Your task to perform on an android device: Clear all items from cart on amazon.com. Search for usb-a on amazon.com, select the first entry, add it to the cart, then select checkout. Image 0: 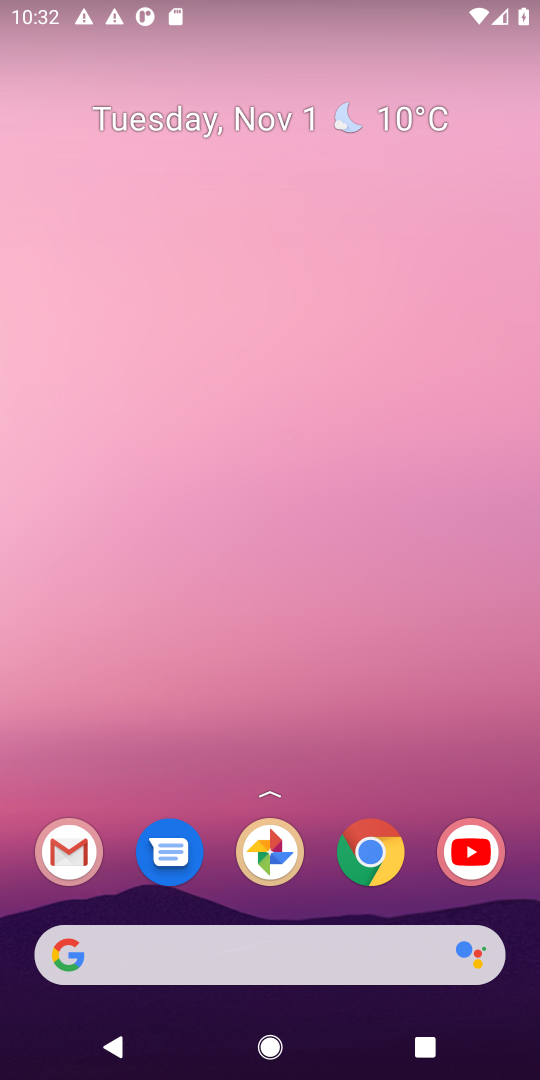
Step 0: press home button
Your task to perform on an android device: Clear all items from cart on amazon.com. Search for usb-a on amazon.com, select the first entry, add it to the cart, then select checkout. Image 1: 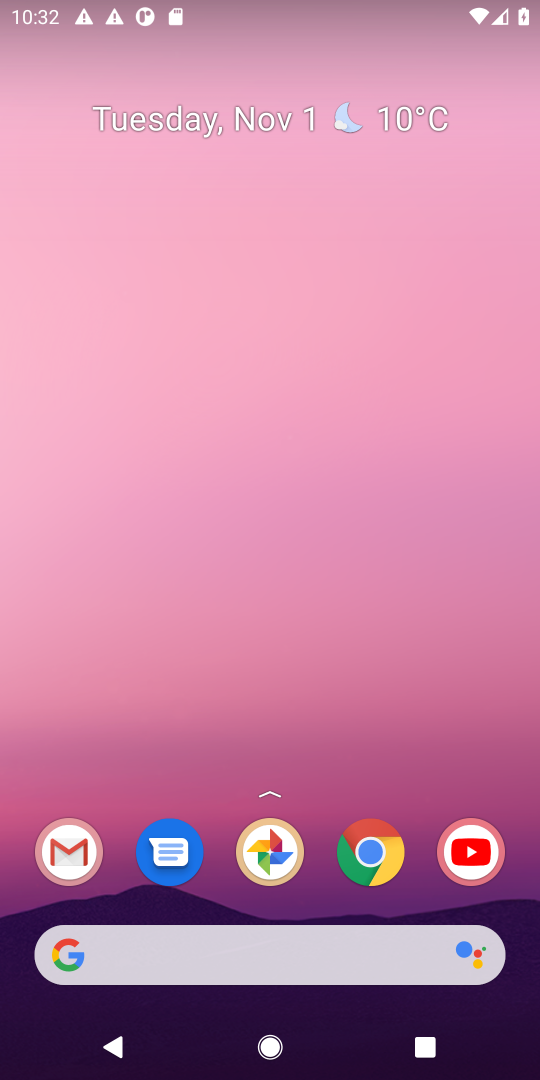
Step 1: click (61, 951)
Your task to perform on an android device: Clear all items from cart on amazon.com. Search for usb-a on amazon.com, select the first entry, add it to the cart, then select checkout. Image 2: 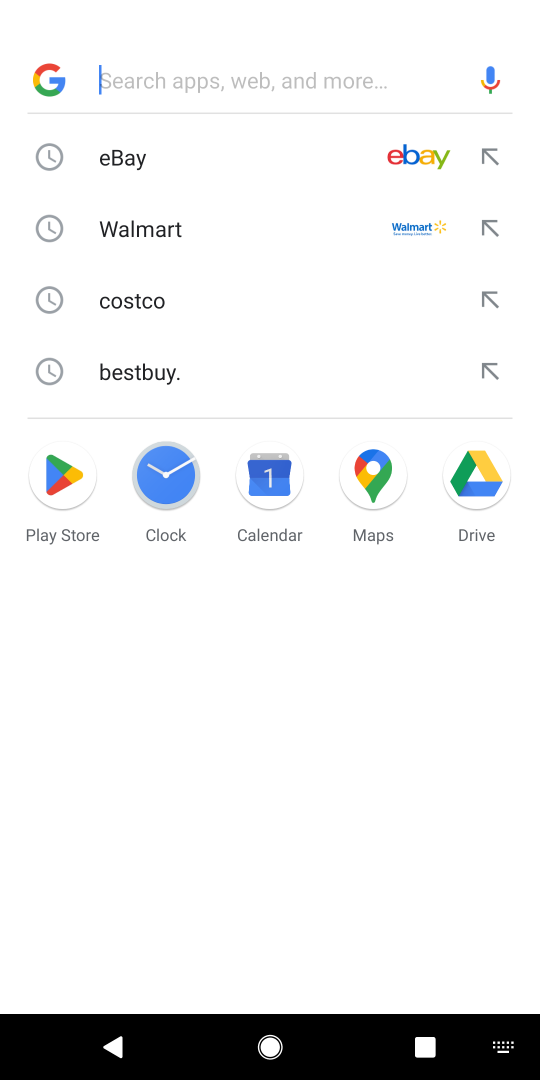
Step 2: type "amazon.com"
Your task to perform on an android device: Clear all items from cart on amazon.com. Search for usb-a on amazon.com, select the first entry, add it to the cart, then select checkout. Image 3: 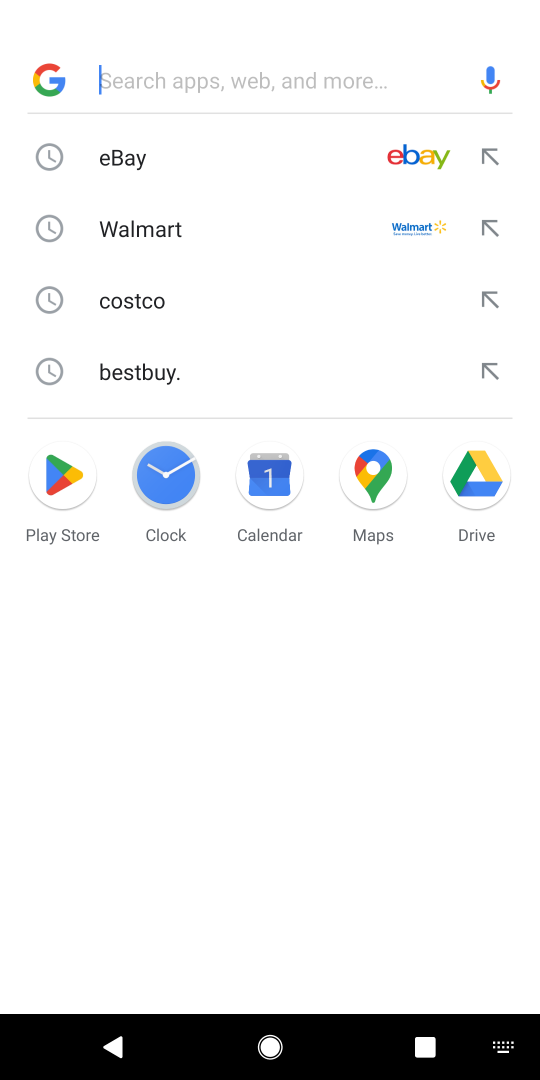
Step 3: click (132, 84)
Your task to perform on an android device: Clear all items from cart on amazon.com. Search for usb-a on amazon.com, select the first entry, add it to the cart, then select checkout. Image 4: 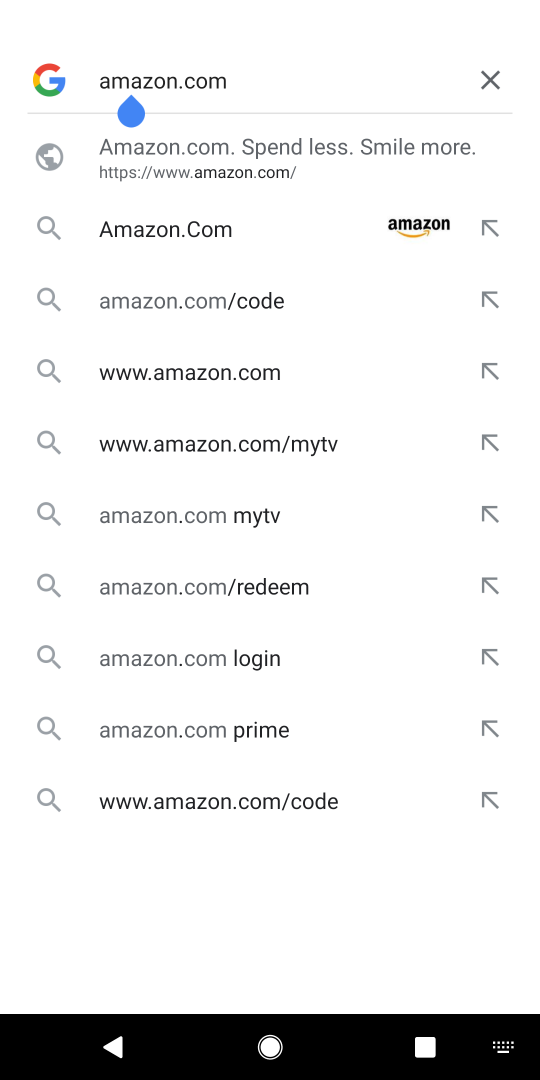
Step 4: click (156, 232)
Your task to perform on an android device: Clear all items from cart on amazon.com. Search for usb-a on amazon.com, select the first entry, add it to the cart, then select checkout. Image 5: 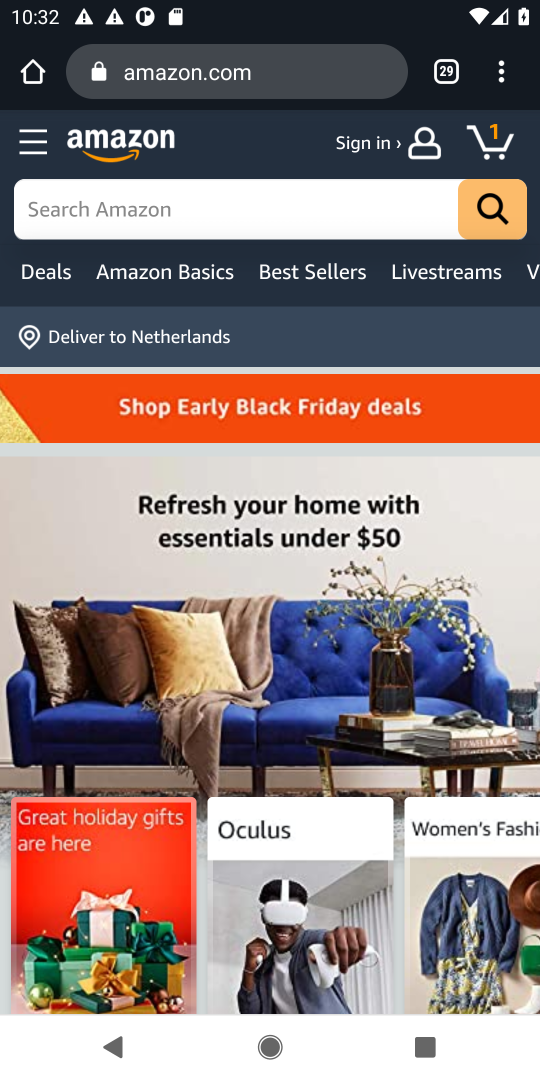
Step 5: click (164, 210)
Your task to perform on an android device: Clear all items from cart on amazon.com. Search for usb-a on amazon.com, select the first entry, add it to the cart, then select checkout. Image 6: 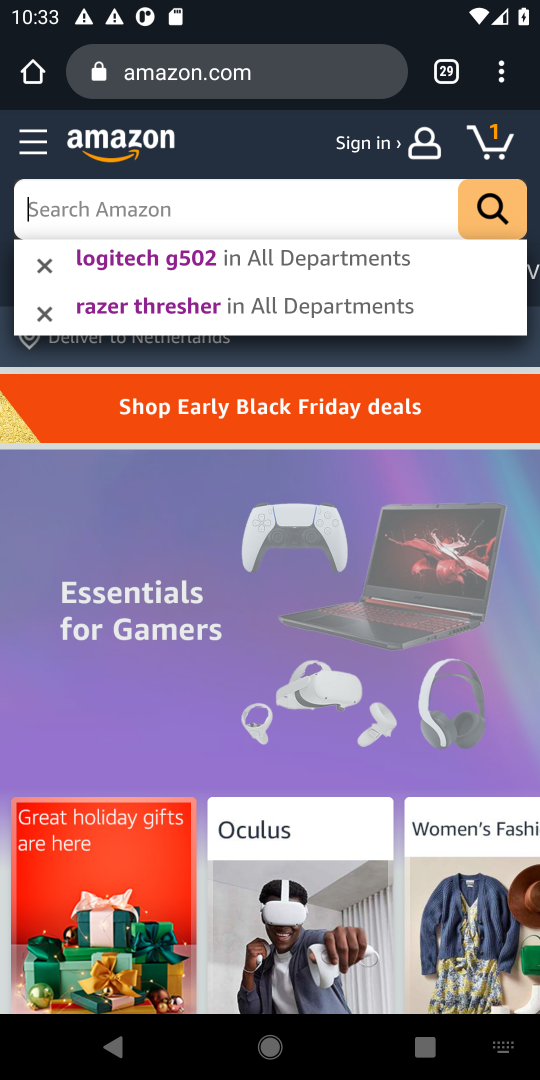
Step 6: type "usb-a "
Your task to perform on an android device: Clear all items from cart on amazon.com. Search for usb-a on amazon.com, select the first entry, add it to the cart, then select checkout. Image 7: 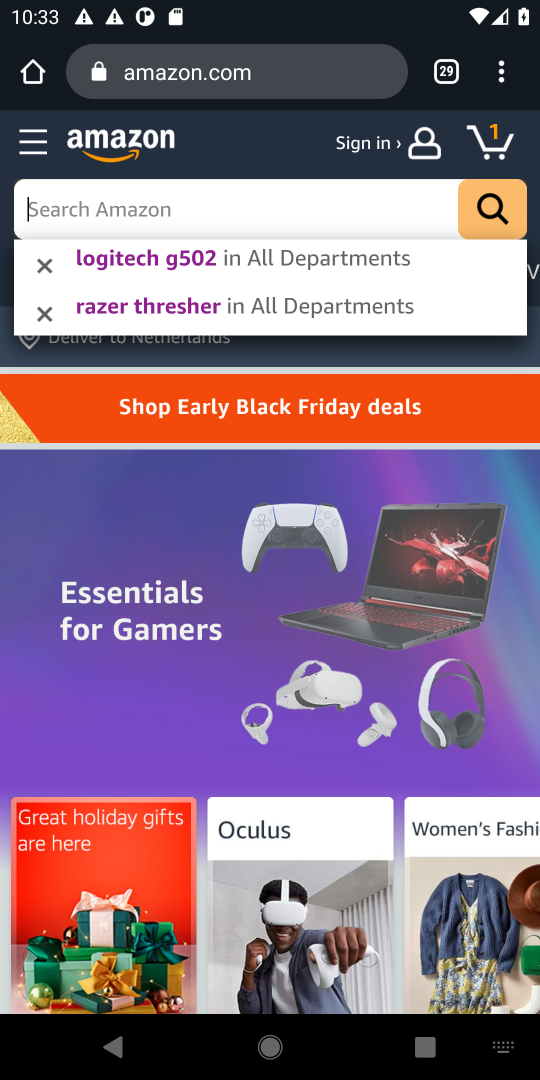
Step 7: click (118, 212)
Your task to perform on an android device: Clear all items from cart on amazon.com. Search for usb-a on amazon.com, select the first entry, add it to the cart, then select checkout. Image 8: 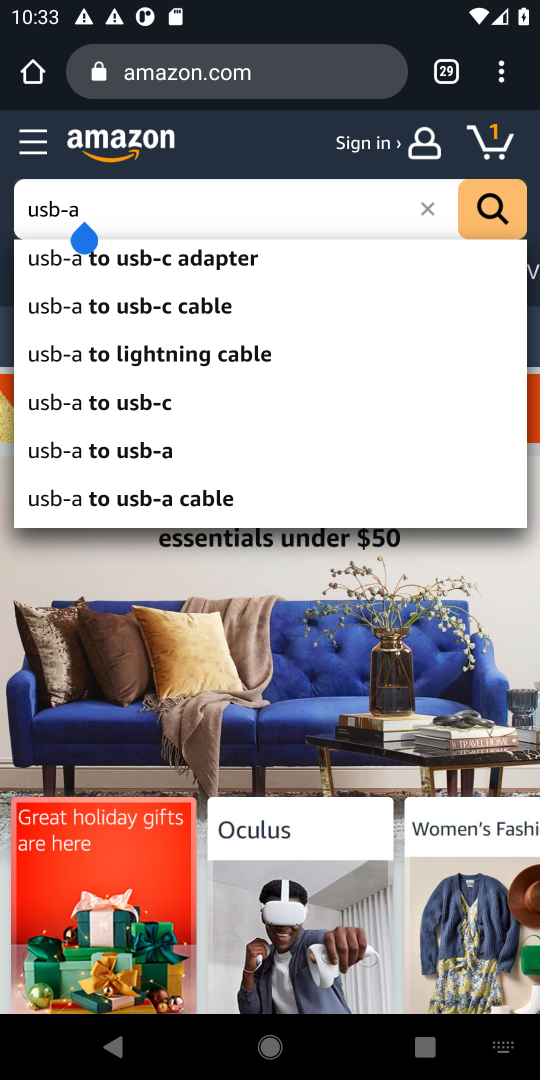
Step 8: click (488, 201)
Your task to perform on an android device: Clear all items from cart on amazon.com. Search for usb-a on amazon.com, select the first entry, add it to the cart, then select checkout. Image 9: 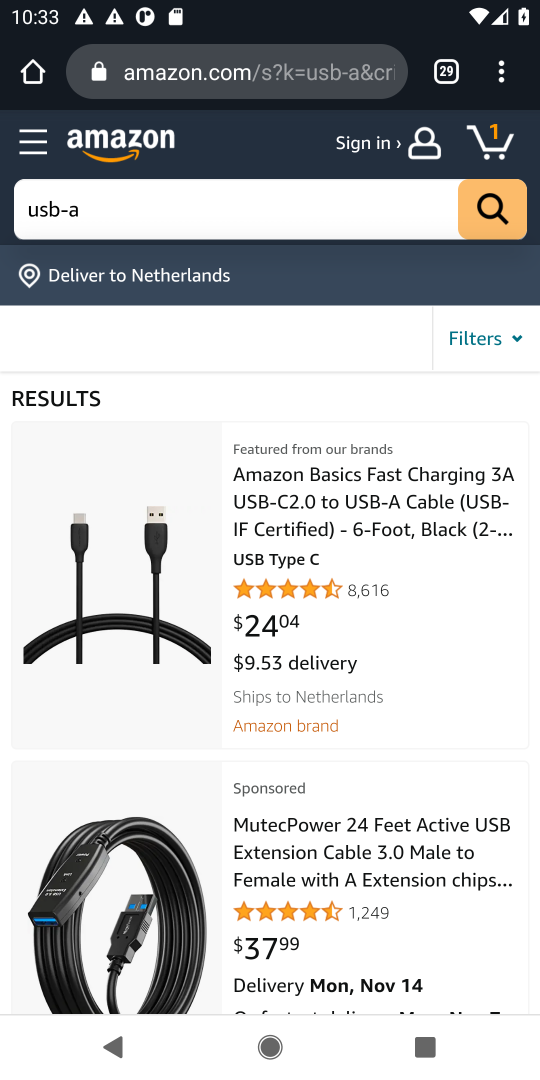
Step 9: drag from (463, 910) to (417, 324)
Your task to perform on an android device: Clear all items from cart on amazon.com. Search for usb-a on amazon.com, select the first entry, add it to the cart, then select checkout. Image 10: 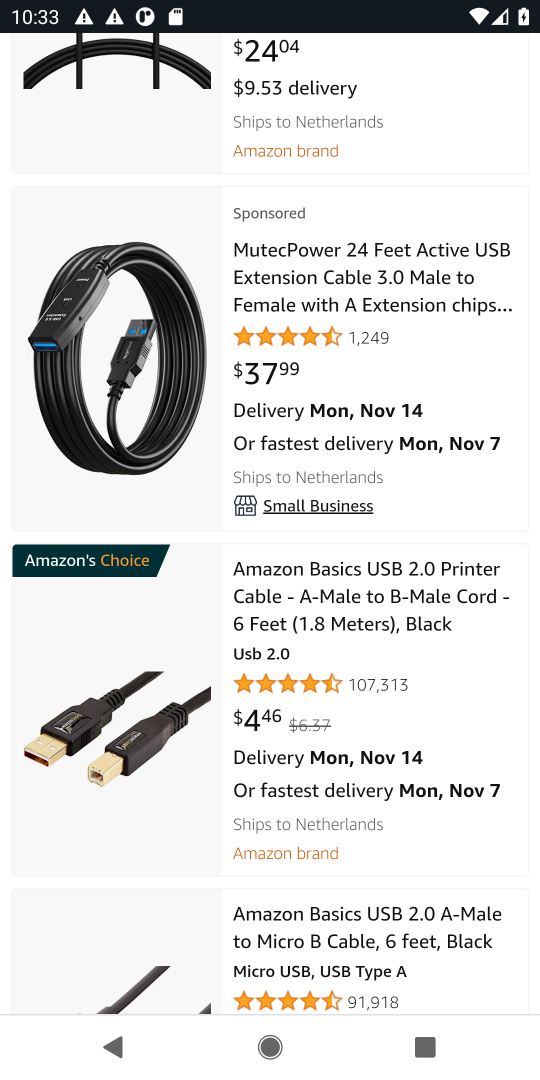
Step 10: click (369, 568)
Your task to perform on an android device: Clear all items from cart on amazon.com. Search for usb-a on amazon.com, select the first entry, add it to the cart, then select checkout. Image 11: 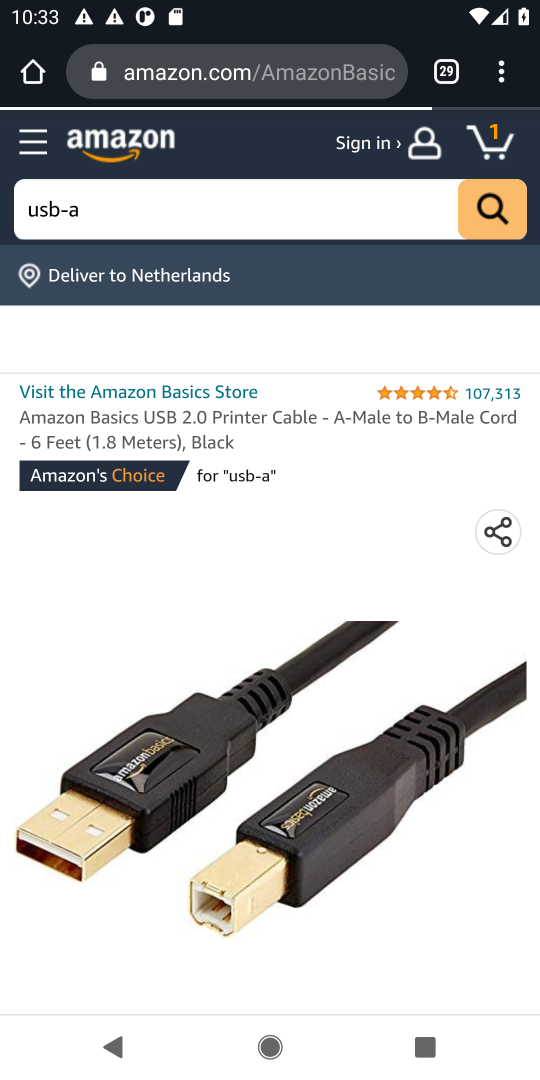
Step 11: drag from (394, 836) to (383, 386)
Your task to perform on an android device: Clear all items from cart on amazon.com. Search for usb-a on amazon.com, select the first entry, add it to the cart, then select checkout. Image 12: 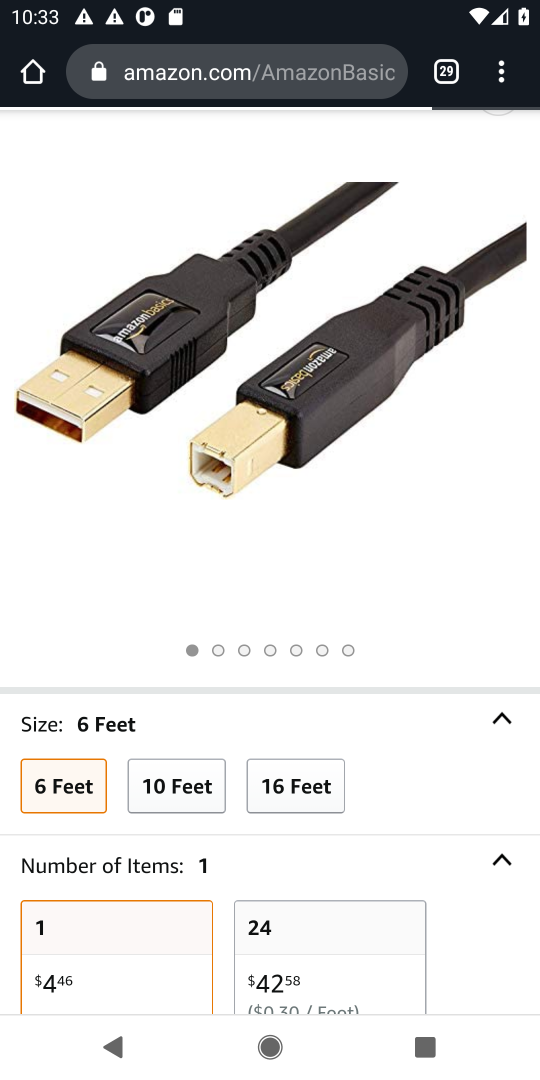
Step 12: drag from (399, 826) to (428, 298)
Your task to perform on an android device: Clear all items from cart on amazon.com. Search for usb-a on amazon.com, select the first entry, add it to the cart, then select checkout. Image 13: 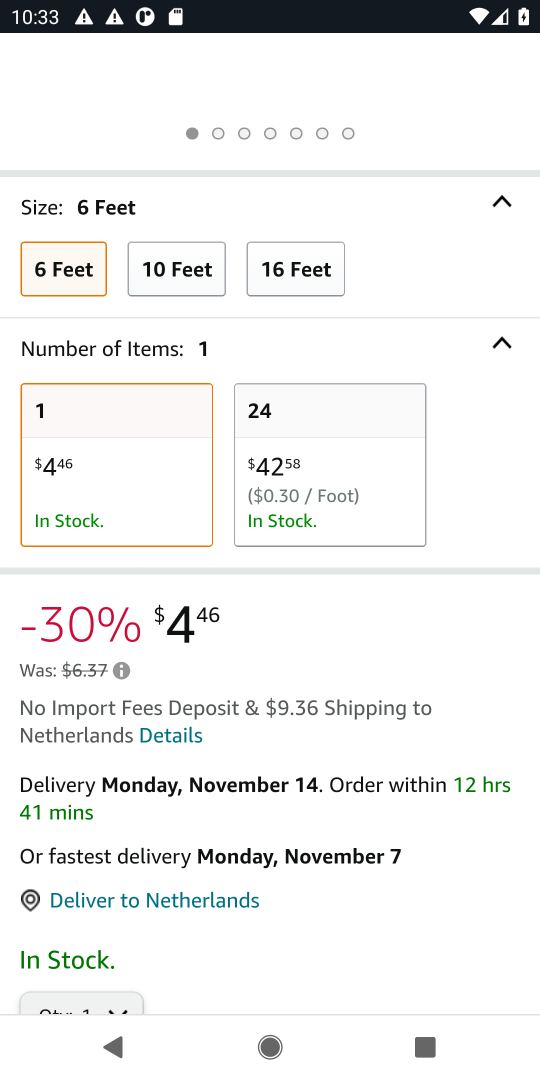
Step 13: drag from (419, 877) to (408, 269)
Your task to perform on an android device: Clear all items from cart on amazon.com. Search for usb-a on amazon.com, select the first entry, add it to the cart, then select checkout. Image 14: 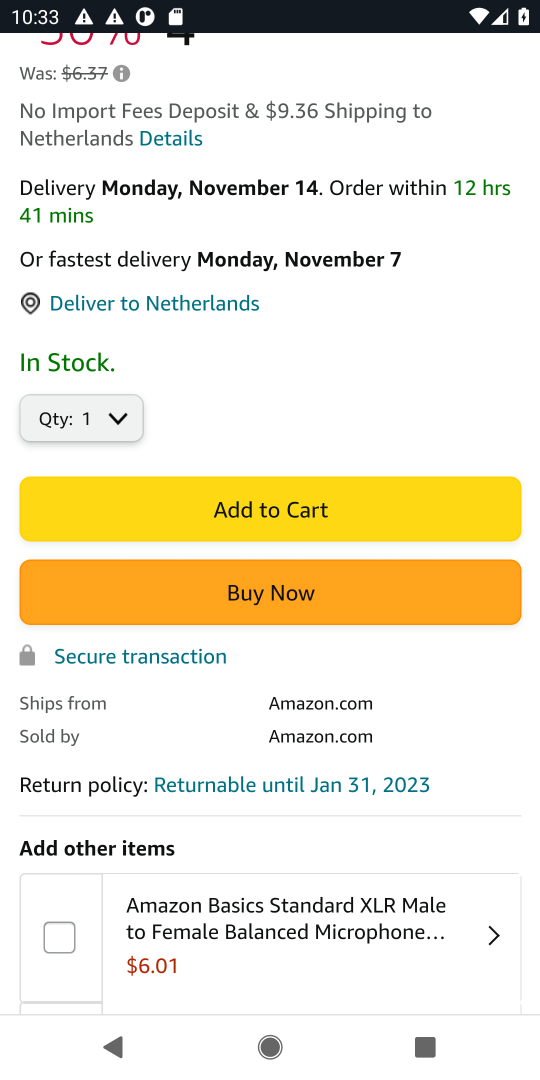
Step 14: click (268, 519)
Your task to perform on an android device: Clear all items from cart on amazon.com. Search for usb-a on amazon.com, select the first entry, add it to the cart, then select checkout. Image 15: 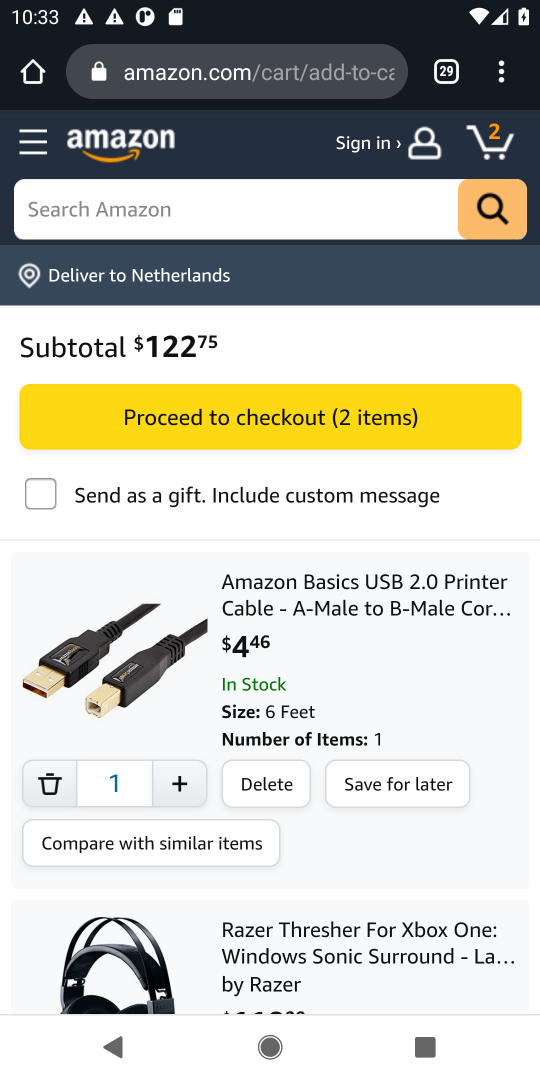
Step 15: click (491, 144)
Your task to perform on an android device: Clear all items from cart on amazon.com. Search for usb-a on amazon.com, select the first entry, add it to the cart, then select checkout. Image 16: 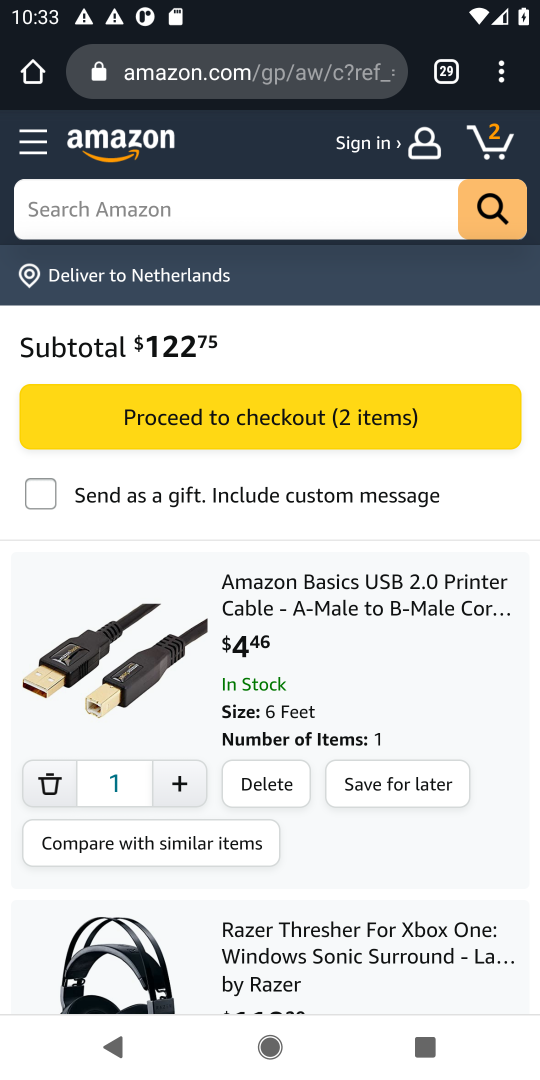
Step 16: drag from (446, 866) to (479, 461)
Your task to perform on an android device: Clear all items from cart on amazon.com. Search for usb-a on amazon.com, select the first entry, add it to the cart, then select checkout. Image 17: 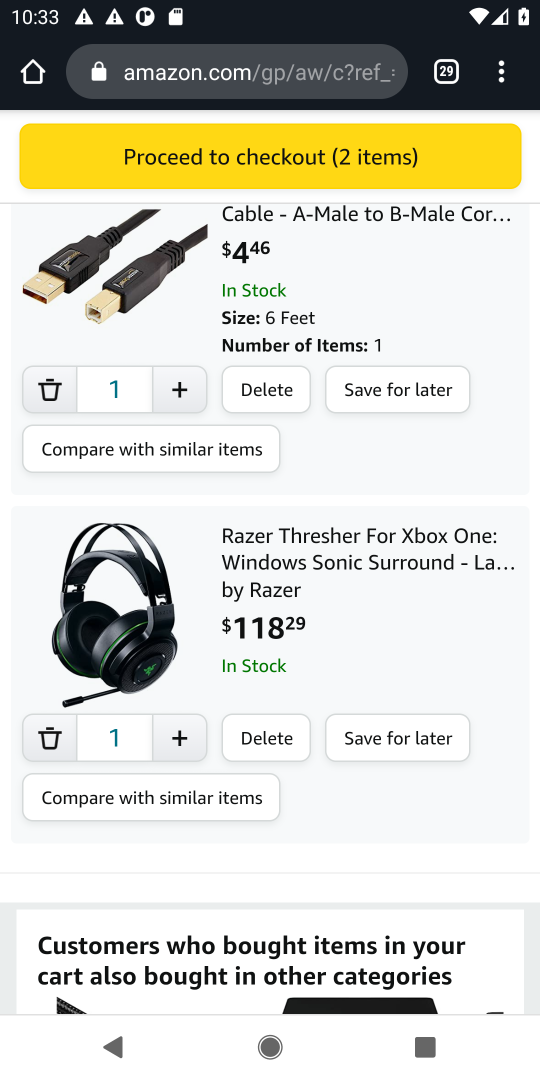
Step 17: click (256, 742)
Your task to perform on an android device: Clear all items from cart on amazon.com. Search for usb-a on amazon.com, select the first entry, add it to the cart, then select checkout. Image 18: 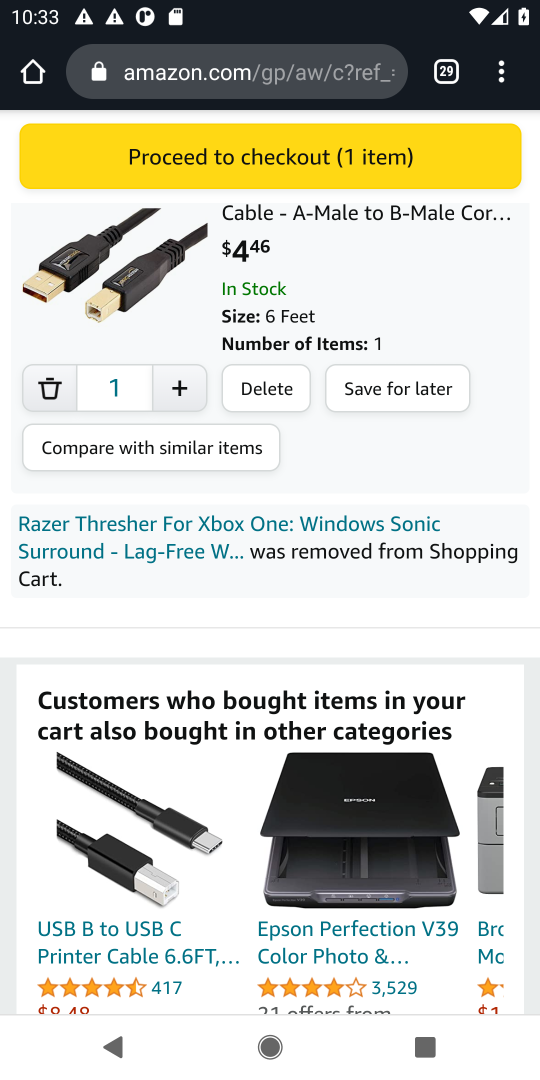
Step 18: click (291, 155)
Your task to perform on an android device: Clear all items from cart on amazon.com. Search for usb-a on amazon.com, select the first entry, add it to the cart, then select checkout. Image 19: 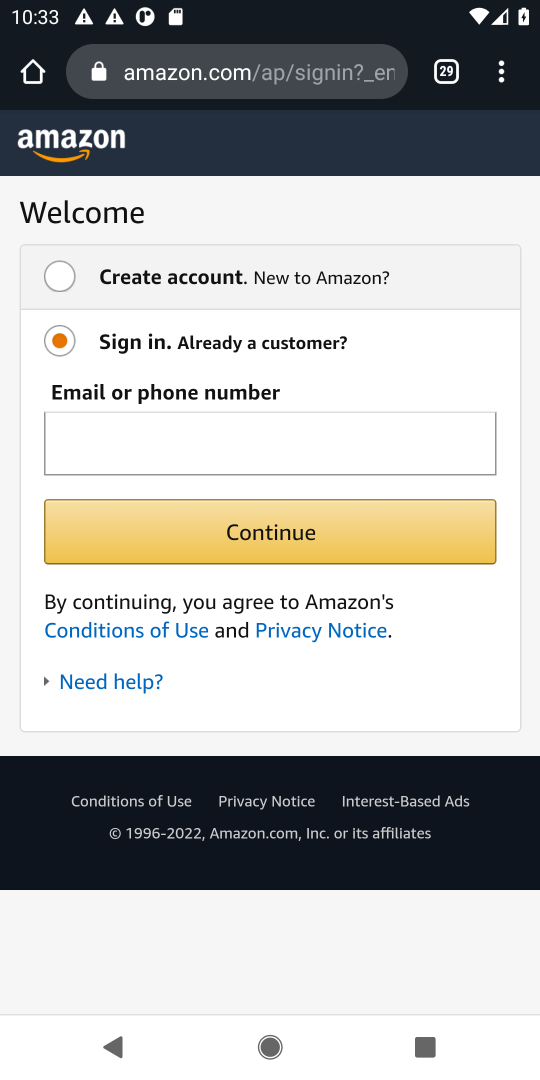
Step 19: task complete